Your task to perform on an android device: open app "Facebook" Image 0: 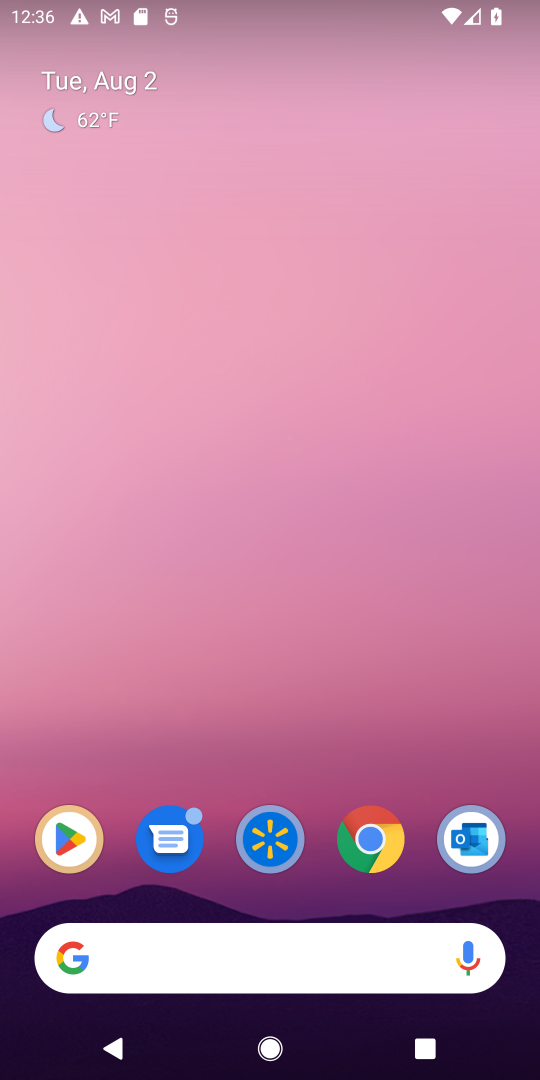
Step 0: click (75, 830)
Your task to perform on an android device: open app "Facebook" Image 1: 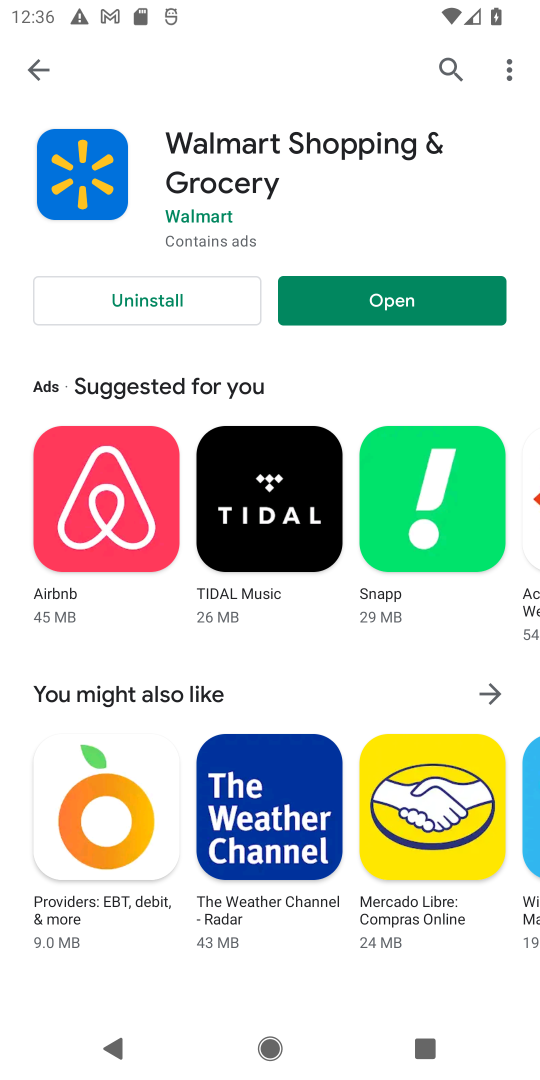
Step 1: click (439, 56)
Your task to perform on an android device: open app "Facebook" Image 2: 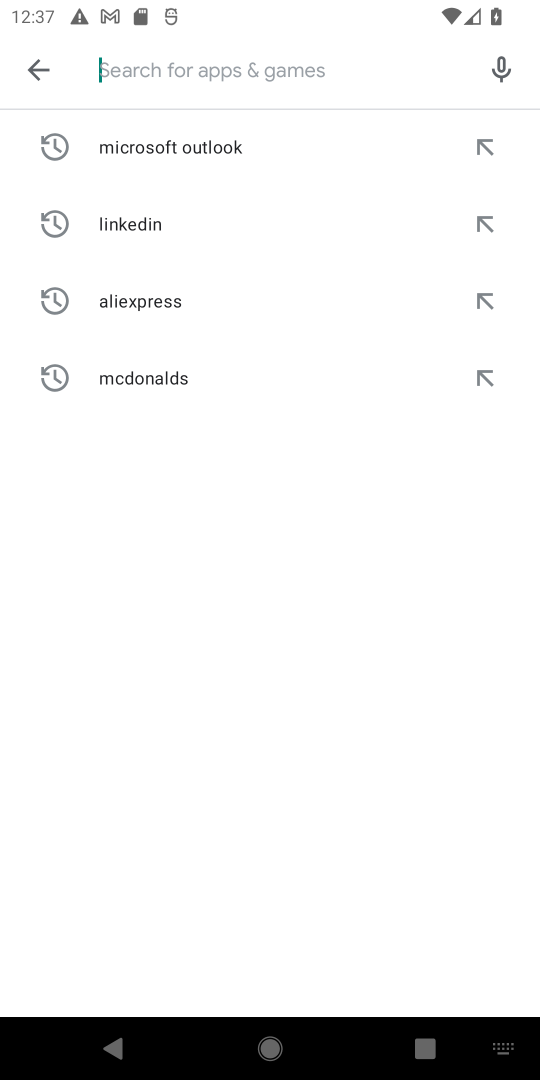
Step 2: type "facebook"
Your task to perform on an android device: open app "Facebook" Image 3: 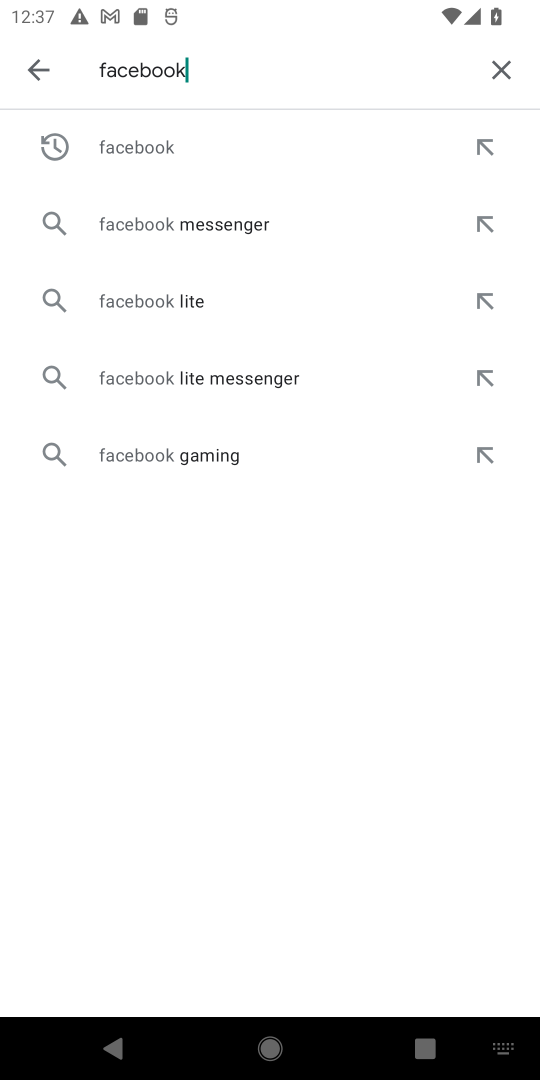
Step 3: click (221, 149)
Your task to perform on an android device: open app "Facebook" Image 4: 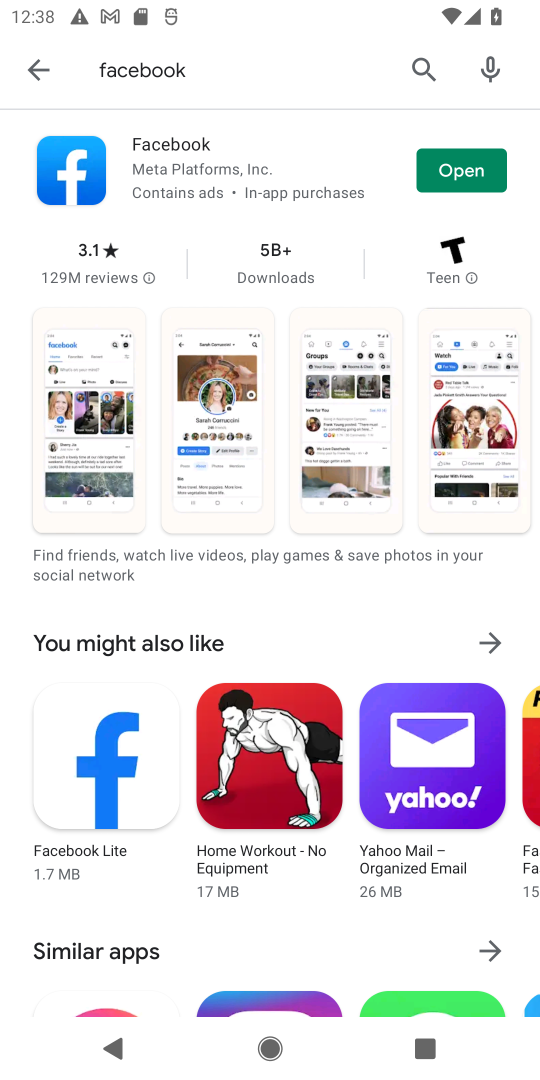
Step 4: click (475, 171)
Your task to perform on an android device: open app "Facebook" Image 5: 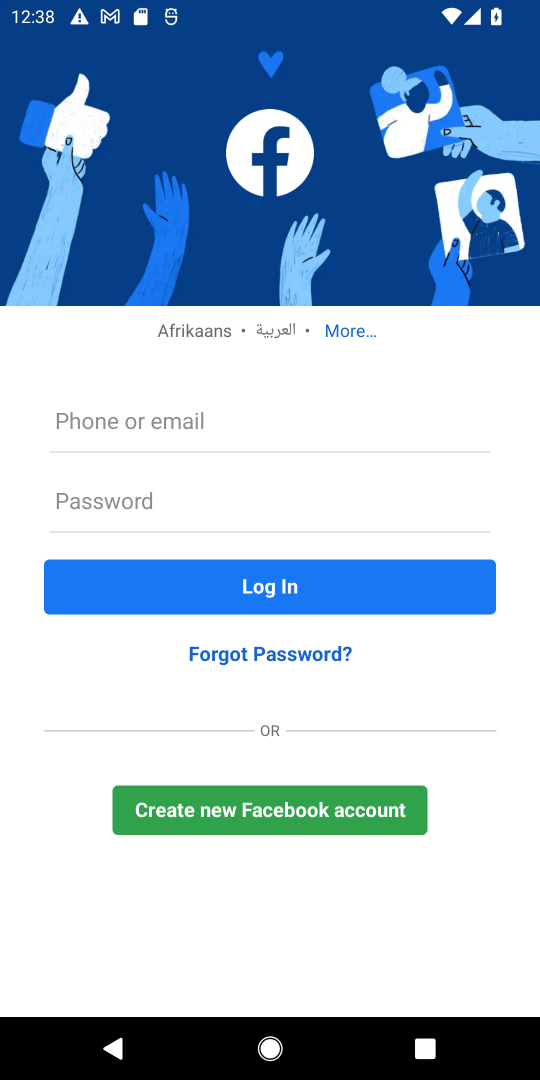
Step 5: task complete